Your task to perform on an android device: turn on showing notifications on the lock screen Image 0: 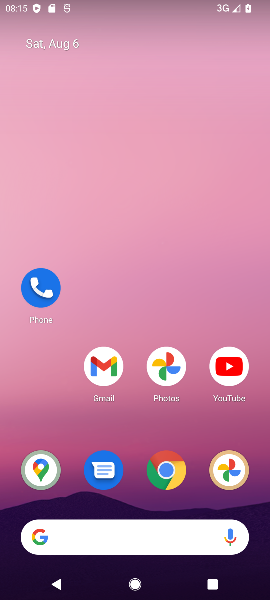
Step 0: drag from (123, 488) to (145, 147)
Your task to perform on an android device: turn on showing notifications on the lock screen Image 1: 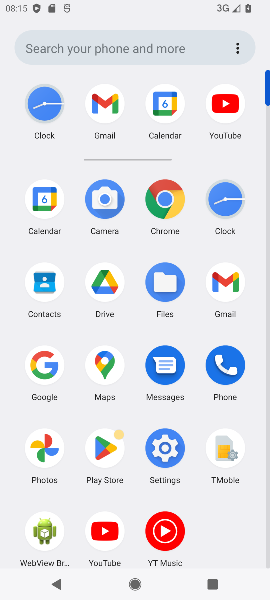
Step 1: click (166, 447)
Your task to perform on an android device: turn on showing notifications on the lock screen Image 2: 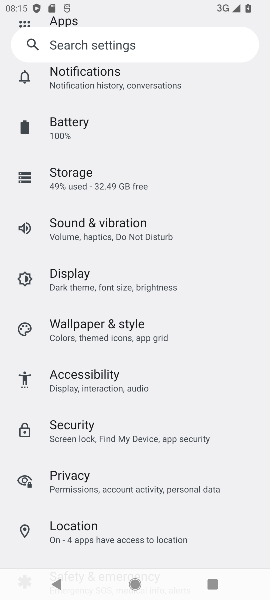
Step 2: click (98, 77)
Your task to perform on an android device: turn on showing notifications on the lock screen Image 3: 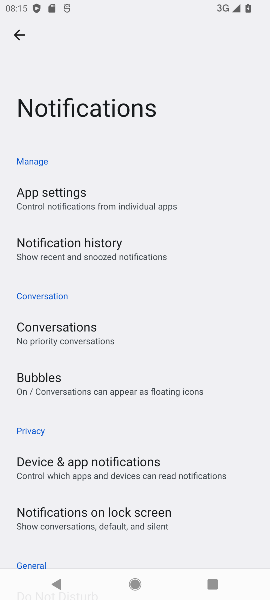
Step 3: click (133, 525)
Your task to perform on an android device: turn on showing notifications on the lock screen Image 4: 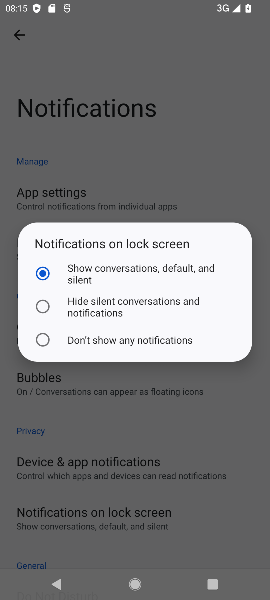
Step 4: click (107, 317)
Your task to perform on an android device: turn on showing notifications on the lock screen Image 5: 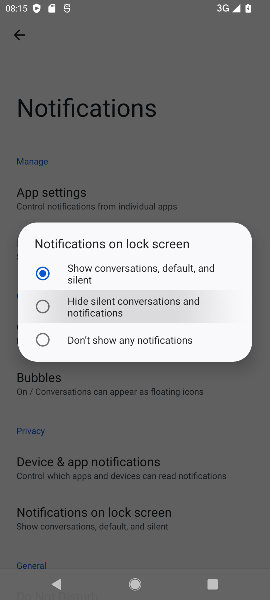
Step 5: click (116, 255)
Your task to perform on an android device: turn on showing notifications on the lock screen Image 6: 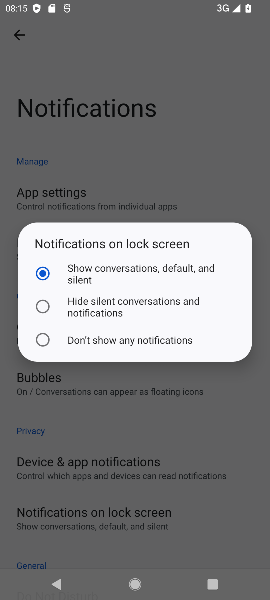
Step 6: click (92, 268)
Your task to perform on an android device: turn on showing notifications on the lock screen Image 7: 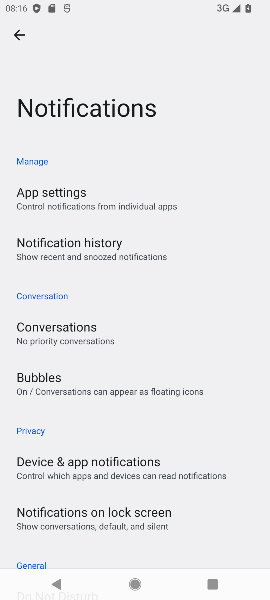
Step 7: click (138, 506)
Your task to perform on an android device: turn on showing notifications on the lock screen Image 8: 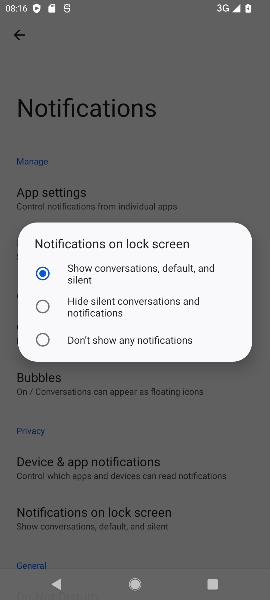
Step 8: click (121, 268)
Your task to perform on an android device: turn on showing notifications on the lock screen Image 9: 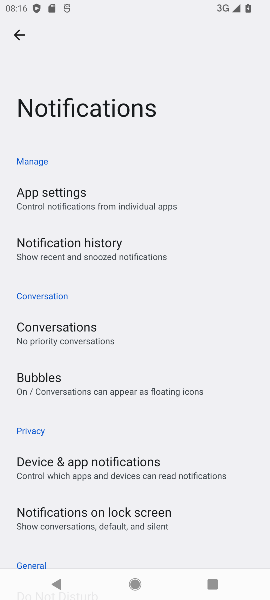
Step 9: task complete